Your task to perform on an android device: Go to calendar. Show me events next week Image 0: 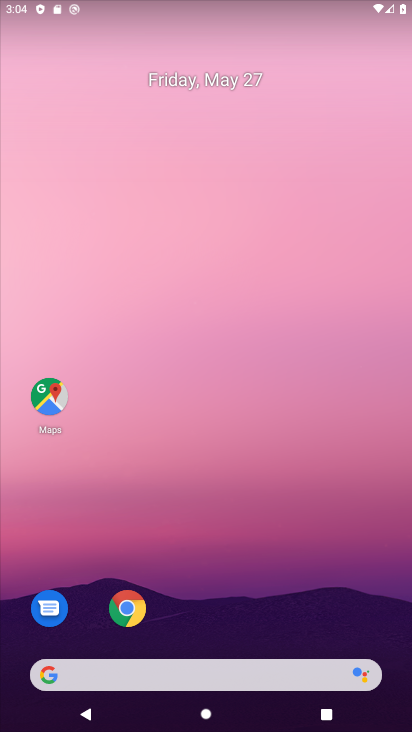
Step 0: drag from (205, 643) to (297, 227)
Your task to perform on an android device: Go to calendar. Show me events next week Image 1: 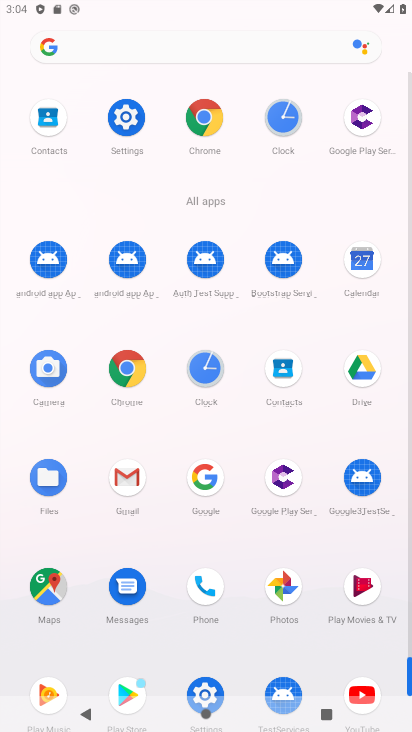
Step 1: click (373, 264)
Your task to perform on an android device: Go to calendar. Show me events next week Image 2: 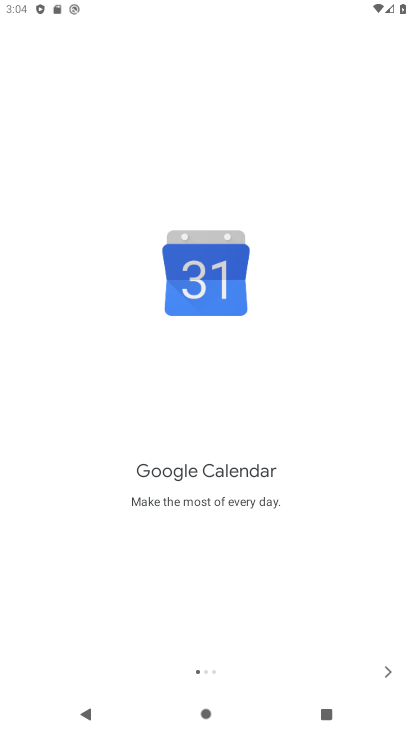
Step 2: click (390, 670)
Your task to perform on an android device: Go to calendar. Show me events next week Image 3: 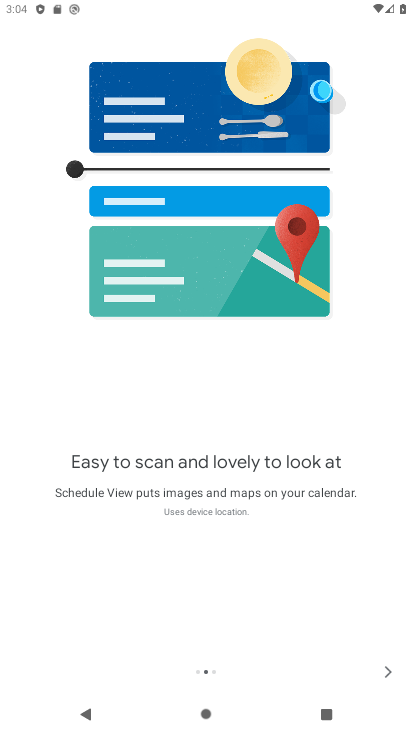
Step 3: click (393, 679)
Your task to perform on an android device: Go to calendar. Show me events next week Image 4: 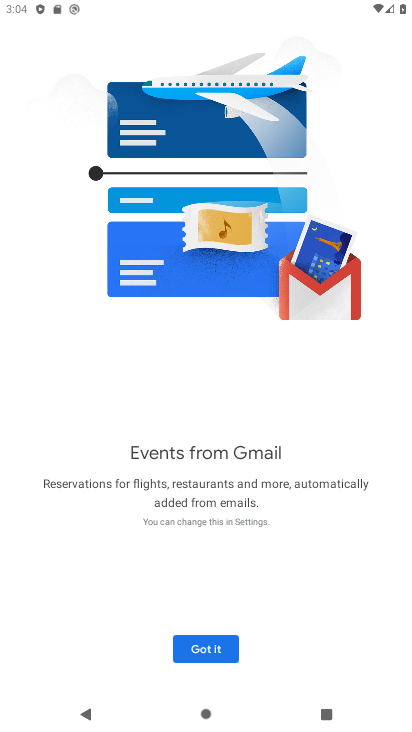
Step 4: click (204, 638)
Your task to perform on an android device: Go to calendar. Show me events next week Image 5: 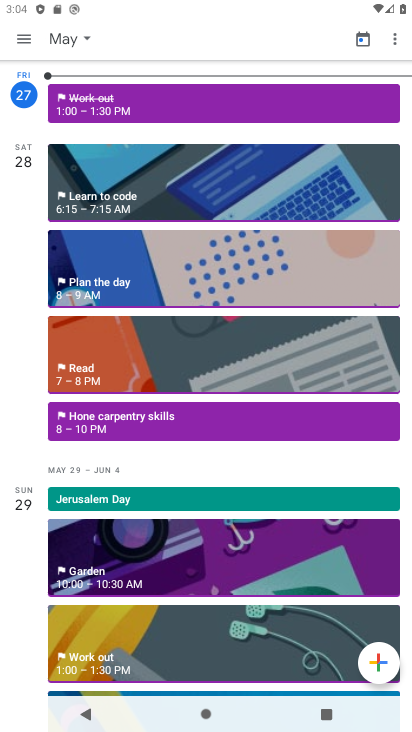
Step 5: click (78, 38)
Your task to perform on an android device: Go to calendar. Show me events next week Image 6: 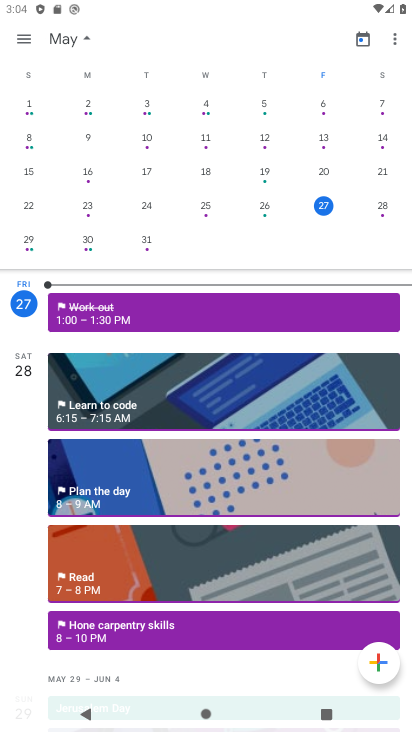
Step 6: click (32, 239)
Your task to perform on an android device: Go to calendar. Show me events next week Image 7: 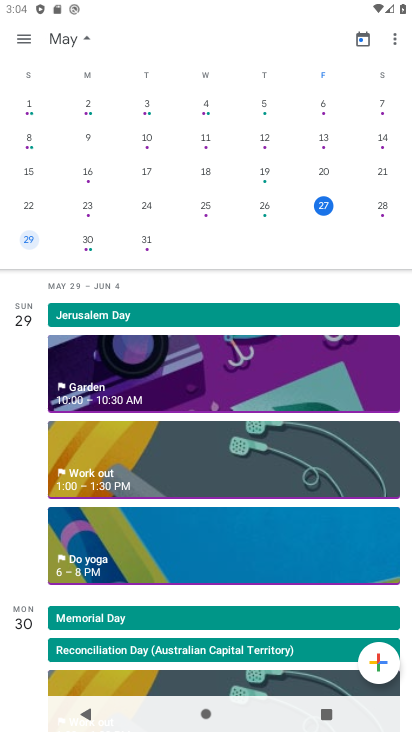
Step 7: click (25, 30)
Your task to perform on an android device: Go to calendar. Show me events next week Image 8: 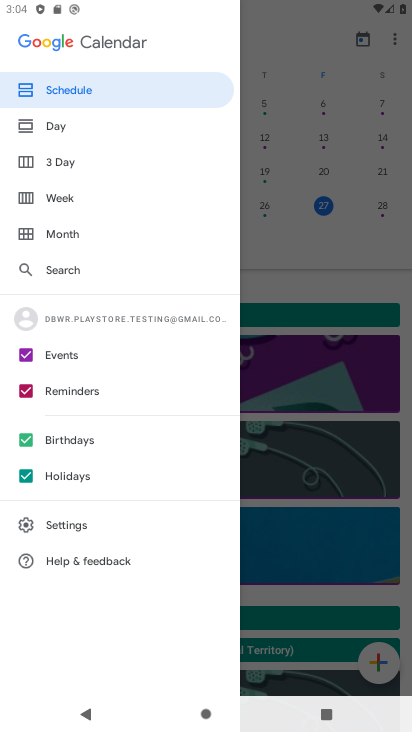
Step 8: click (59, 192)
Your task to perform on an android device: Go to calendar. Show me events next week Image 9: 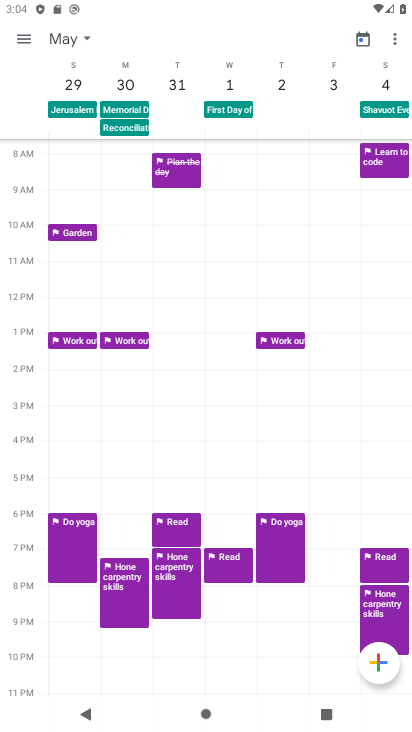
Step 9: task complete